Your task to perform on an android device: set an alarm Image 0: 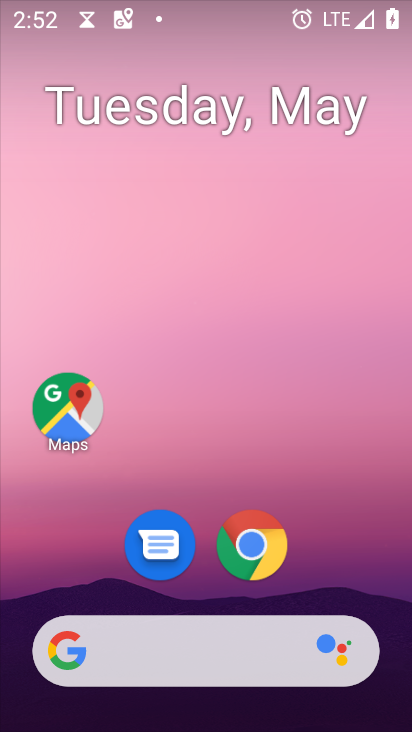
Step 0: drag from (327, 512) to (248, 45)
Your task to perform on an android device: set an alarm Image 1: 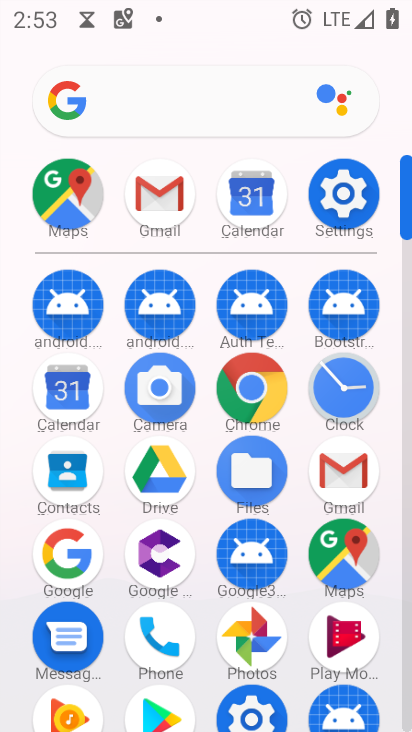
Step 1: click (347, 384)
Your task to perform on an android device: set an alarm Image 2: 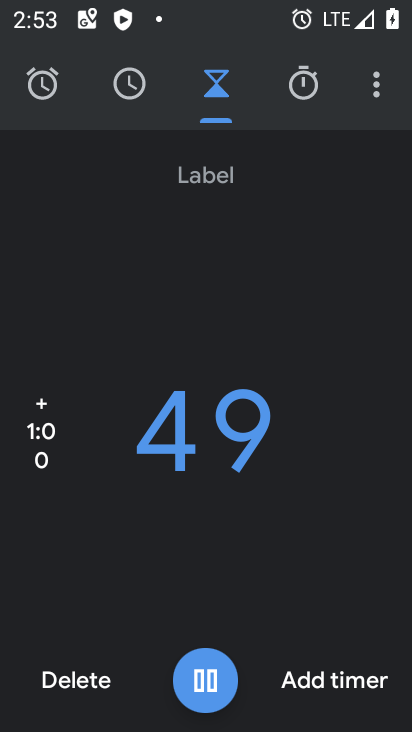
Step 2: click (43, 70)
Your task to perform on an android device: set an alarm Image 3: 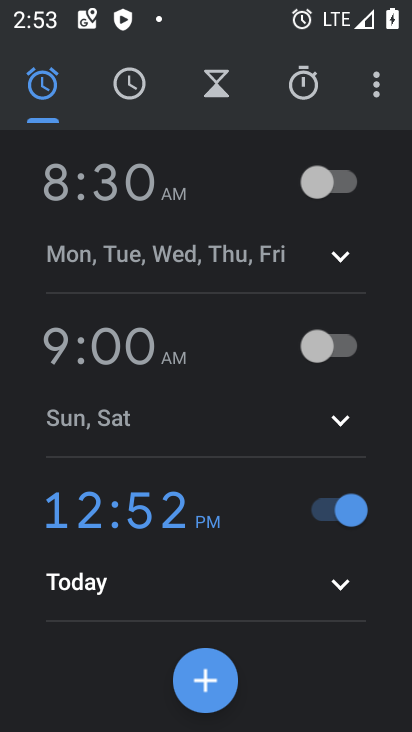
Step 3: click (211, 678)
Your task to perform on an android device: set an alarm Image 4: 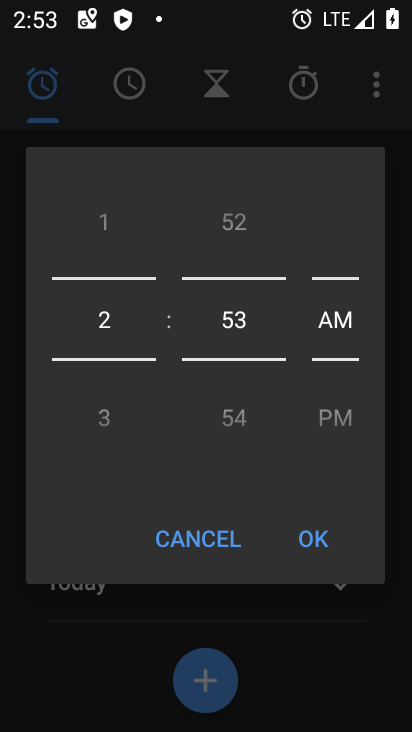
Step 4: drag from (134, 367) to (122, 180)
Your task to perform on an android device: set an alarm Image 5: 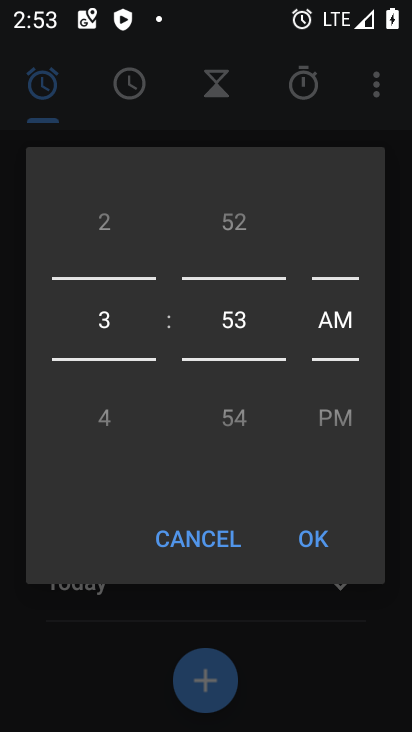
Step 5: drag from (112, 356) to (133, 229)
Your task to perform on an android device: set an alarm Image 6: 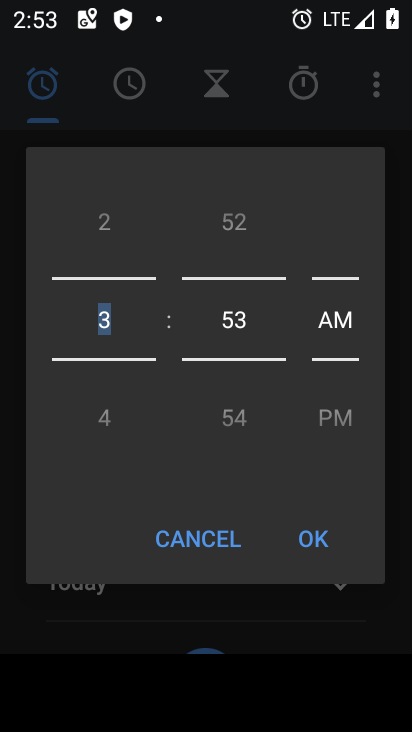
Step 6: click (315, 542)
Your task to perform on an android device: set an alarm Image 7: 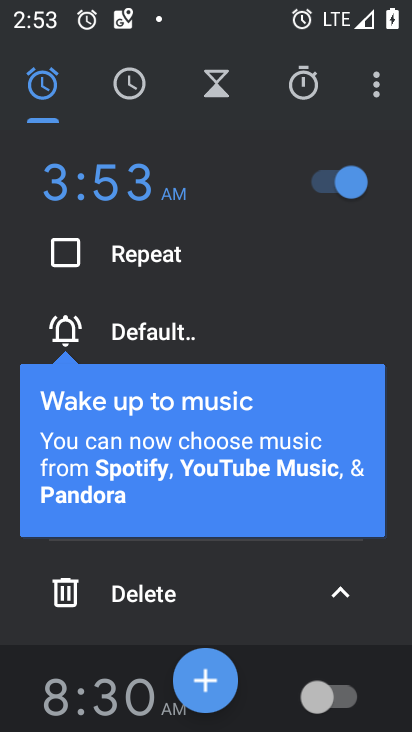
Step 7: task complete